Your task to perform on an android device: allow cookies in the chrome app Image 0: 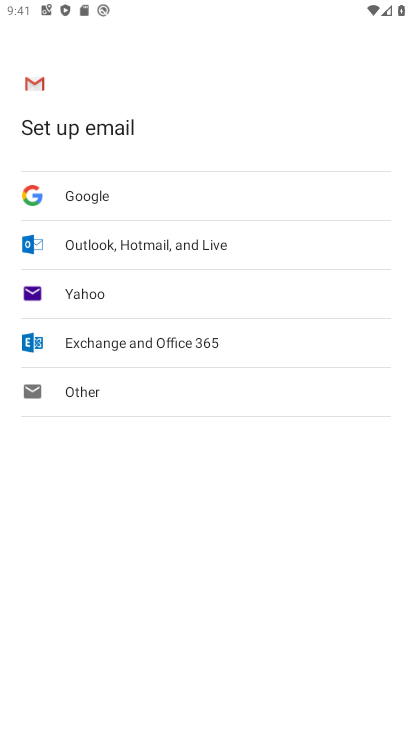
Step 0: press home button
Your task to perform on an android device: allow cookies in the chrome app Image 1: 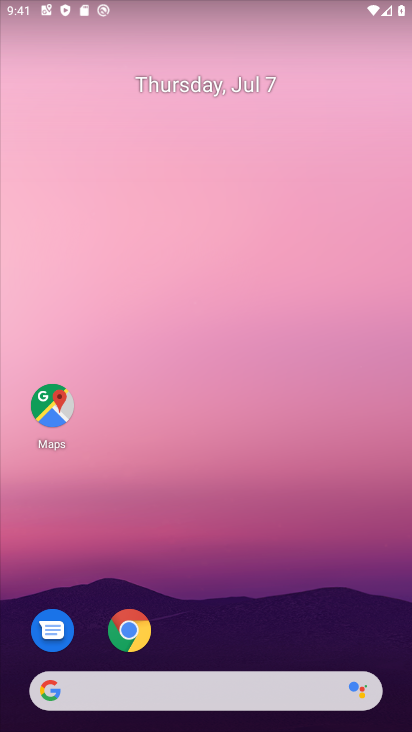
Step 1: click (130, 640)
Your task to perform on an android device: allow cookies in the chrome app Image 2: 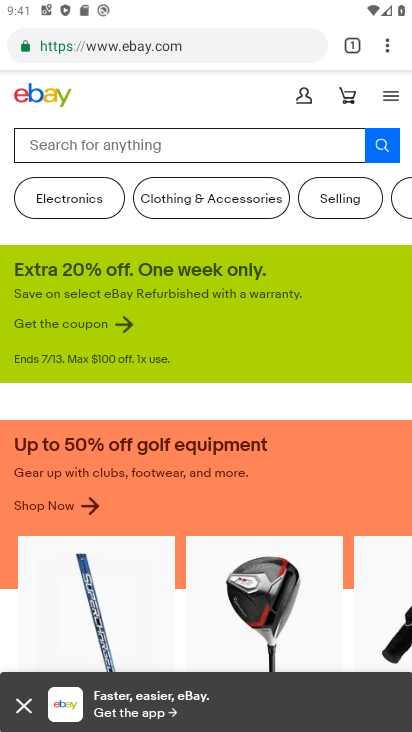
Step 2: click (388, 38)
Your task to perform on an android device: allow cookies in the chrome app Image 3: 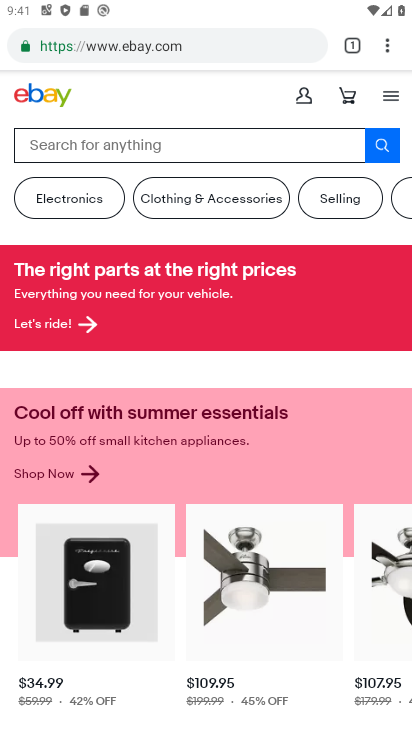
Step 3: click (389, 47)
Your task to perform on an android device: allow cookies in the chrome app Image 4: 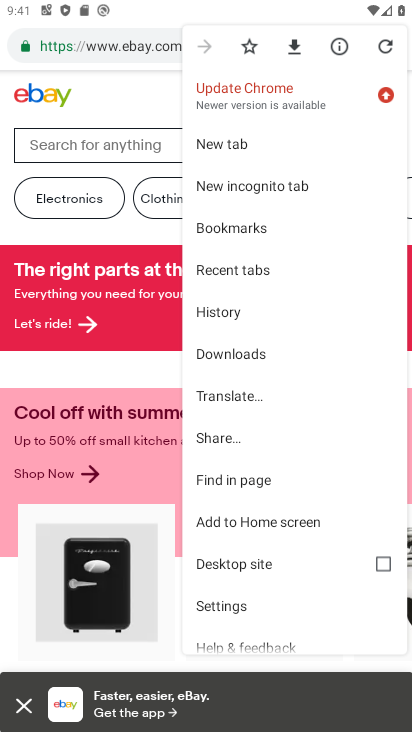
Step 4: click (223, 597)
Your task to perform on an android device: allow cookies in the chrome app Image 5: 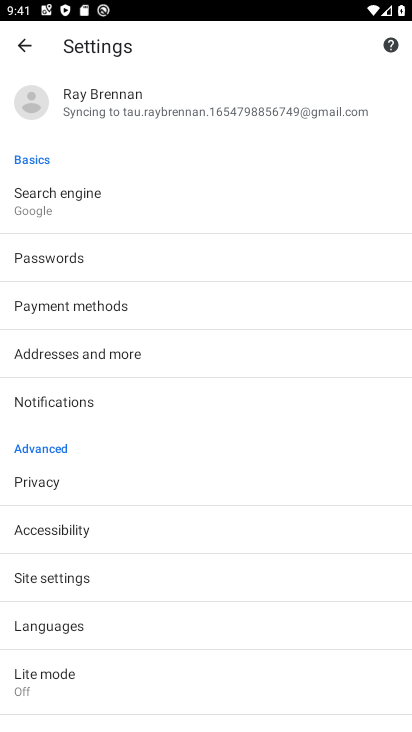
Step 5: click (37, 580)
Your task to perform on an android device: allow cookies in the chrome app Image 6: 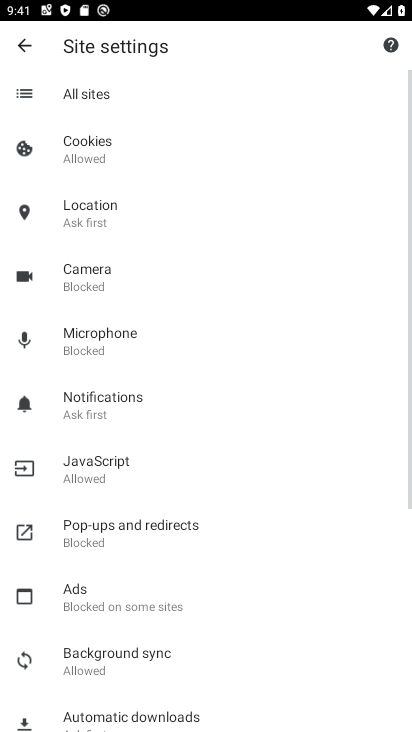
Step 6: click (94, 145)
Your task to perform on an android device: allow cookies in the chrome app Image 7: 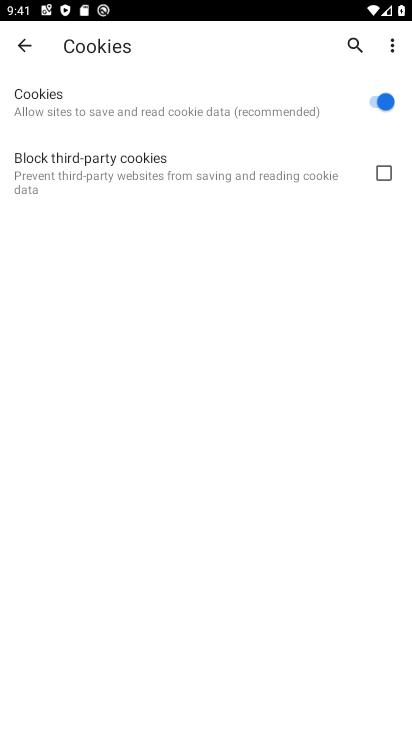
Step 7: task complete